Your task to perform on an android device: clear history in the chrome app Image 0: 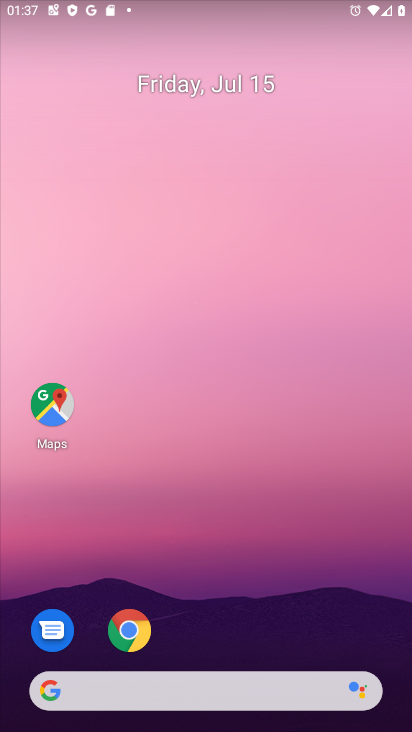
Step 0: click (154, 623)
Your task to perform on an android device: clear history in the chrome app Image 1: 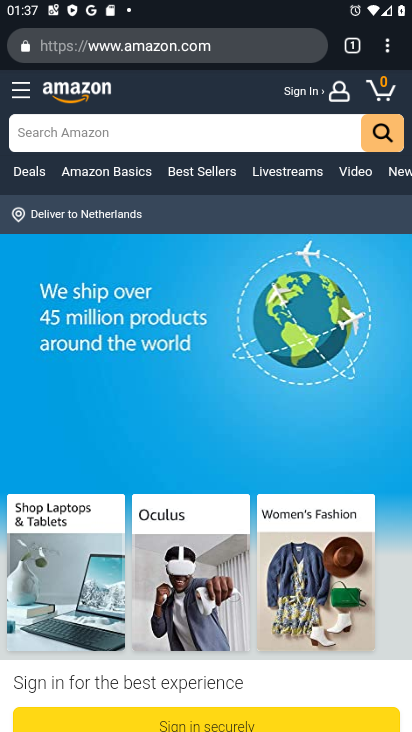
Step 1: click (383, 47)
Your task to perform on an android device: clear history in the chrome app Image 2: 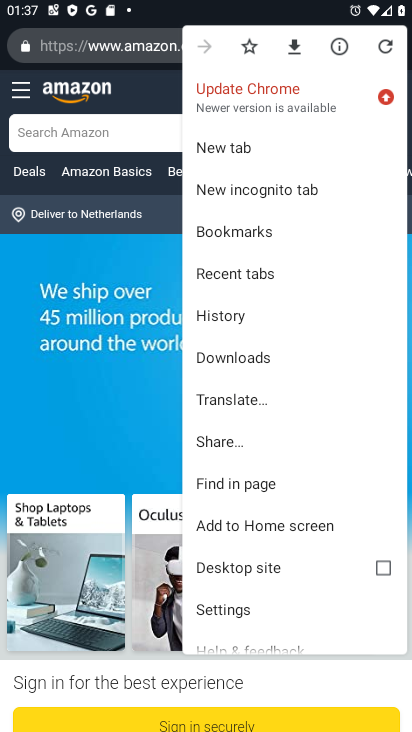
Step 2: click (215, 627)
Your task to perform on an android device: clear history in the chrome app Image 3: 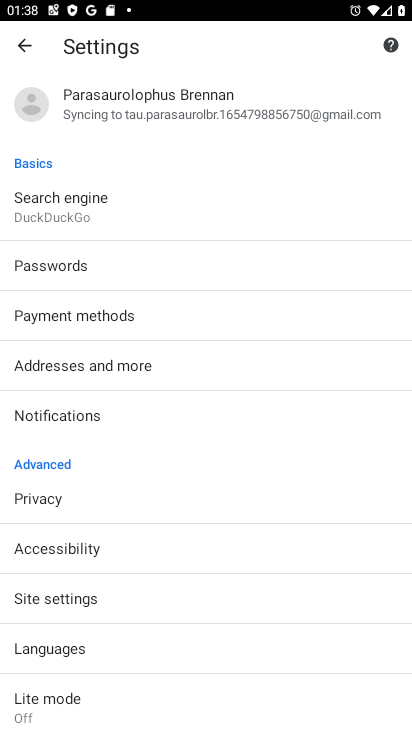
Step 3: click (8, 54)
Your task to perform on an android device: clear history in the chrome app Image 4: 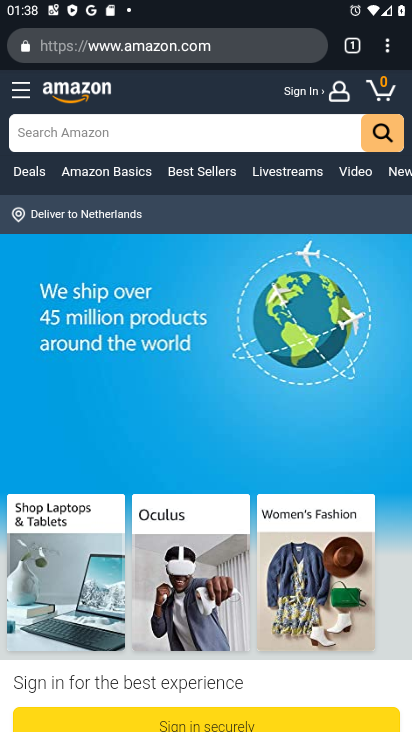
Step 4: click (377, 43)
Your task to perform on an android device: clear history in the chrome app Image 5: 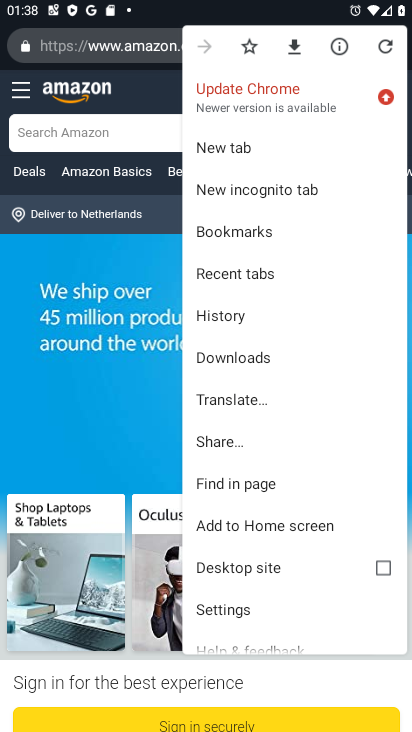
Step 5: click (262, 319)
Your task to perform on an android device: clear history in the chrome app Image 6: 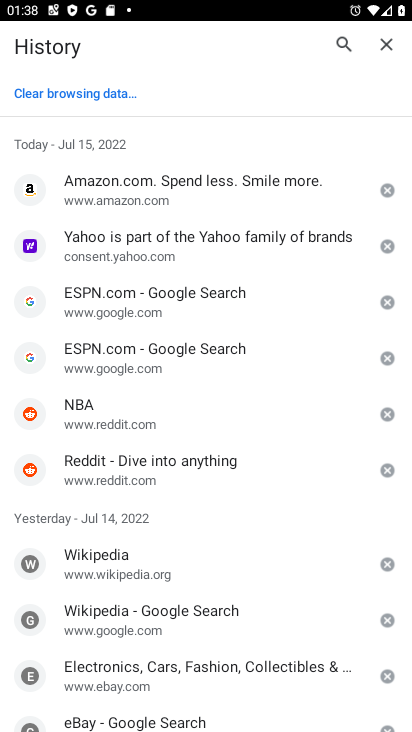
Step 6: click (117, 97)
Your task to perform on an android device: clear history in the chrome app Image 7: 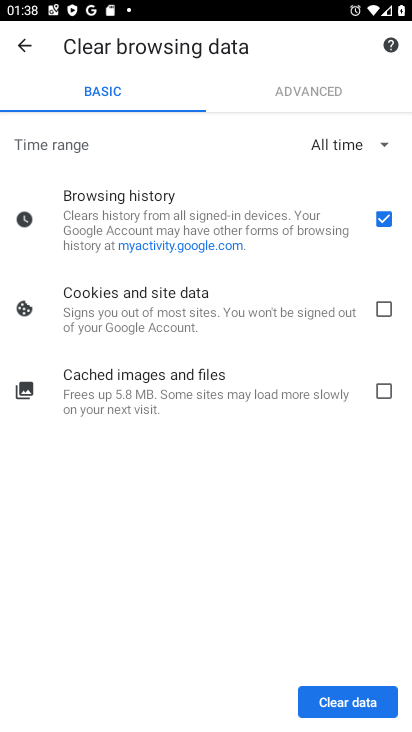
Step 7: click (364, 695)
Your task to perform on an android device: clear history in the chrome app Image 8: 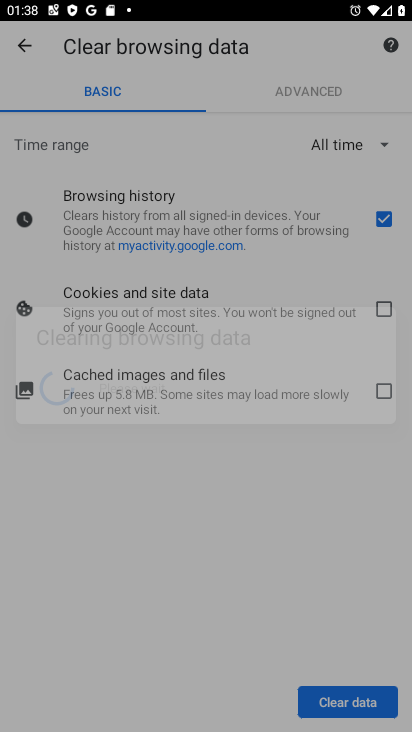
Step 8: task complete